Your task to perform on an android device: turn notification dots on Image 0: 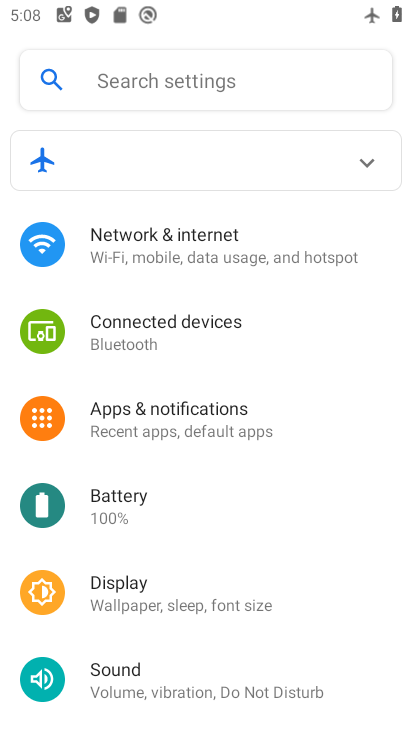
Step 0: press home button
Your task to perform on an android device: turn notification dots on Image 1: 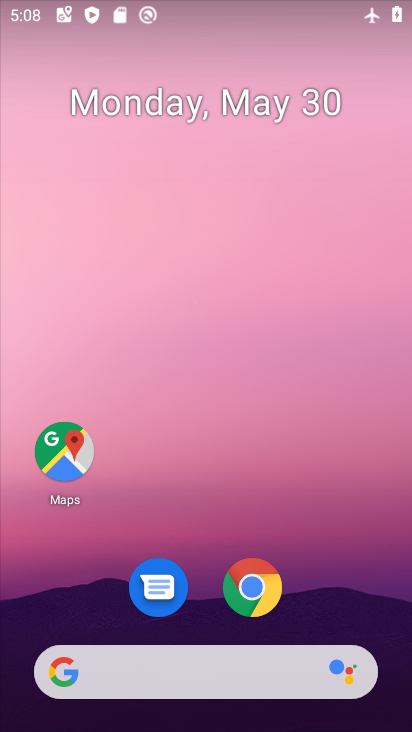
Step 1: drag from (346, 490) to (355, 63)
Your task to perform on an android device: turn notification dots on Image 2: 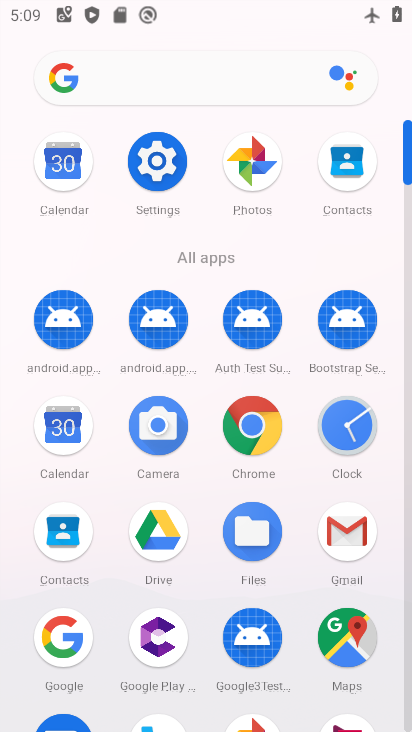
Step 2: click (157, 158)
Your task to perform on an android device: turn notification dots on Image 3: 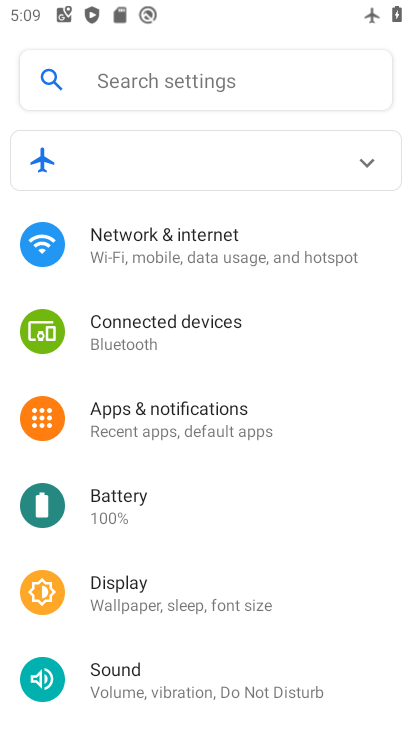
Step 3: click (151, 410)
Your task to perform on an android device: turn notification dots on Image 4: 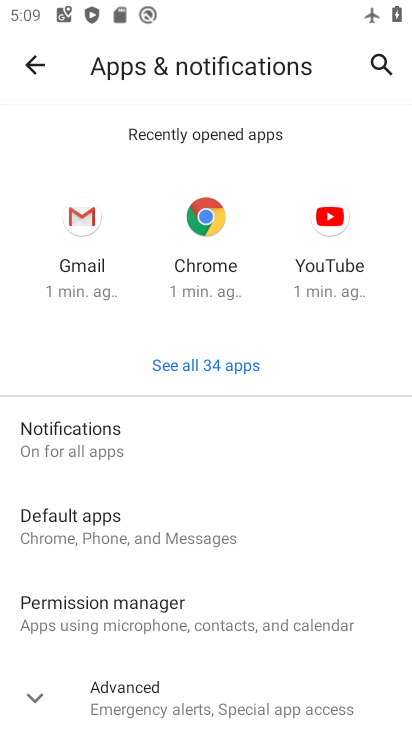
Step 4: click (103, 436)
Your task to perform on an android device: turn notification dots on Image 5: 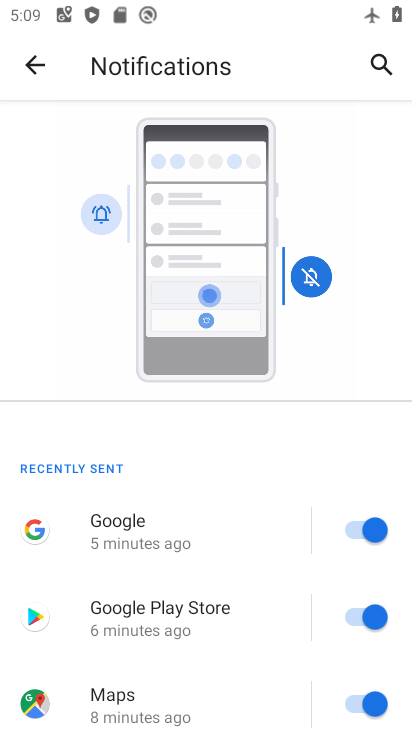
Step 5: drag from (224, 501) to (232, 353)
Your task to perform on an android device: turn notification dots on Image 6: 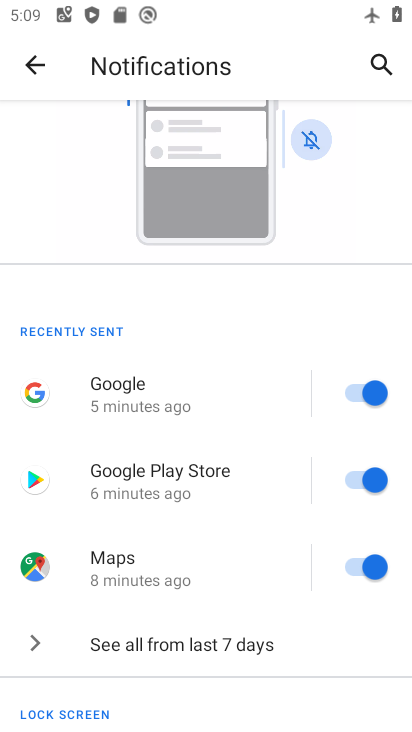
Step 6: drag from (150, 523) to (161, 379)
Your task to perform on an android device: turn notification dots on Image 7: 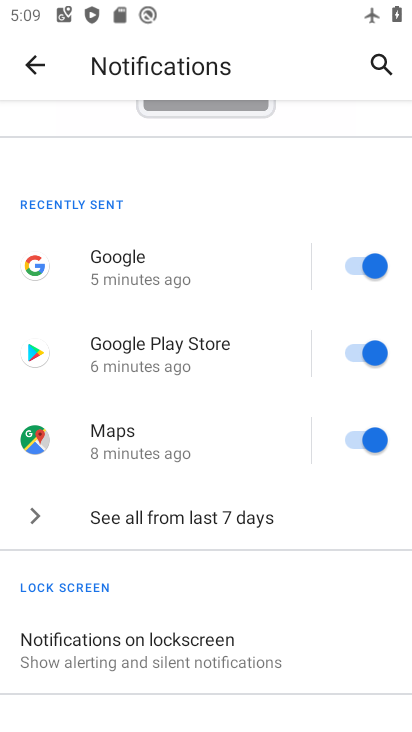
Step 7: drag from (150, 482) to (149, 341)
Your task to perform on an android device: turn notification dots on Image 8: 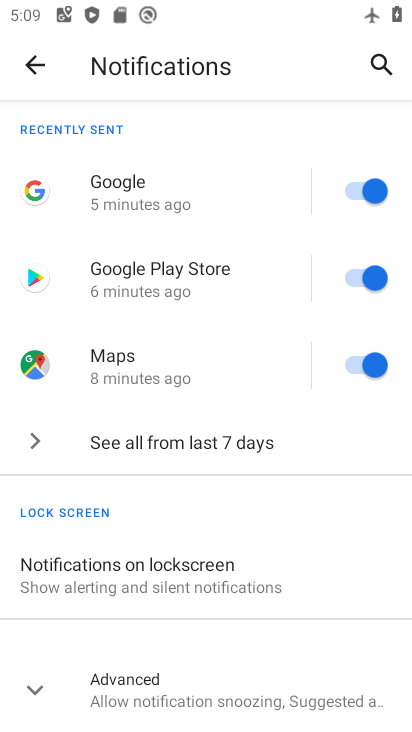
Step 8: click (179, 690)
Your task to perform on an android device: turn notification dots on Image 9: 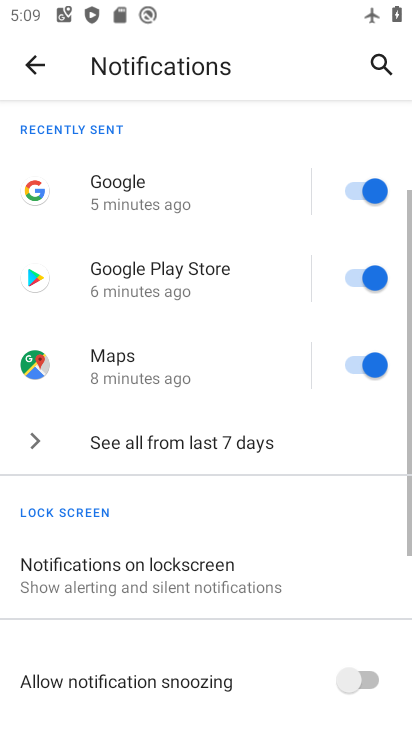
Step 9: task complete